Your task to perform on an android device: find which apps use the phone's location Image 0: 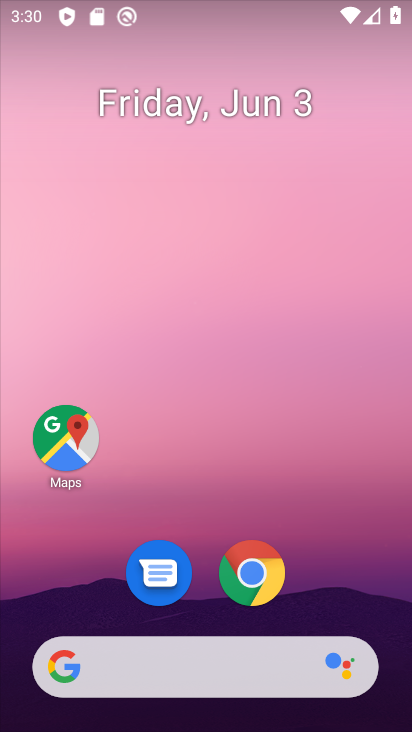
Step 0: drag from (399, 711) to (383, 138)
Your task to perform on an android device: find which apps use the phone's location Image 1: 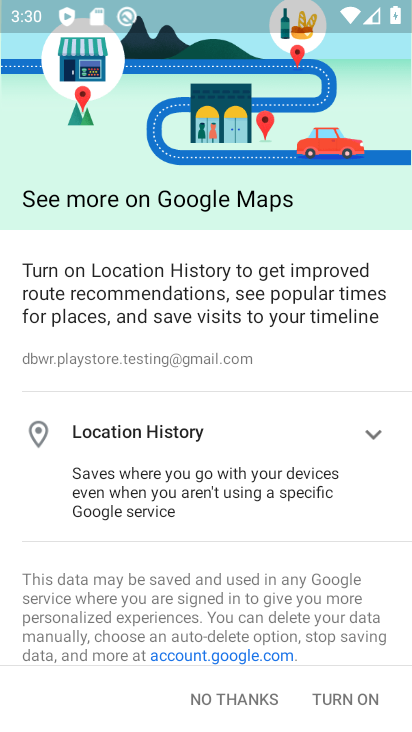
Step 1: click (341, 702)
Your task to perform on an android device: find which apps use the phone's location Image 2: 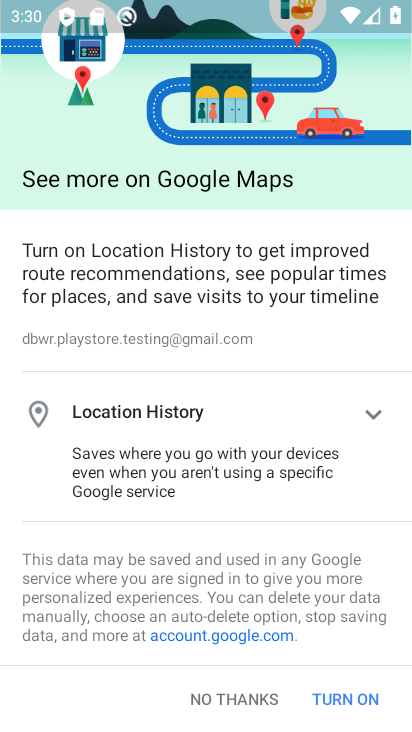
Step 2: press home button
Your task to perform on an android device: find which apps use the phone's location Image 3: 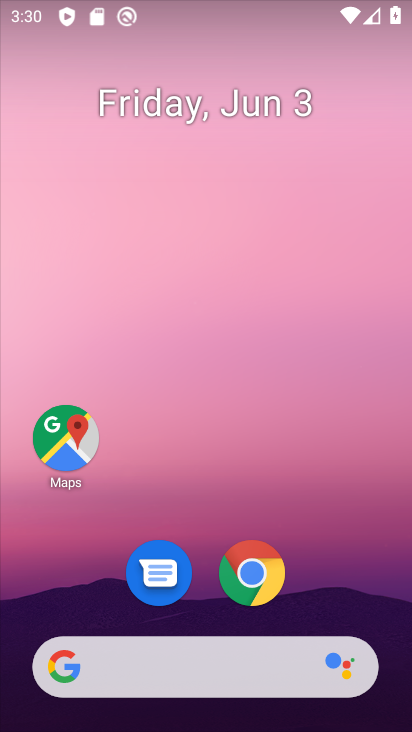
Step 3: drag from (408, 705) to (394, 524)
Your task to perform on an android device: find which apps use the phone's location Image 4: 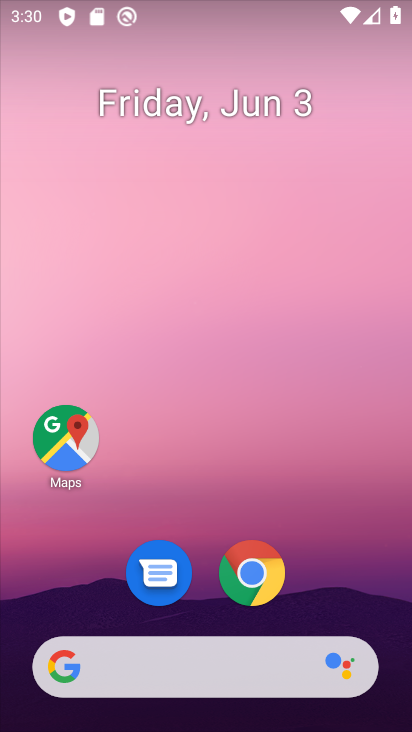
Step 4: drag from (394, 707) to (384, 278)
Your task to perform on an android device: find which apps use the phone's location Image 5: 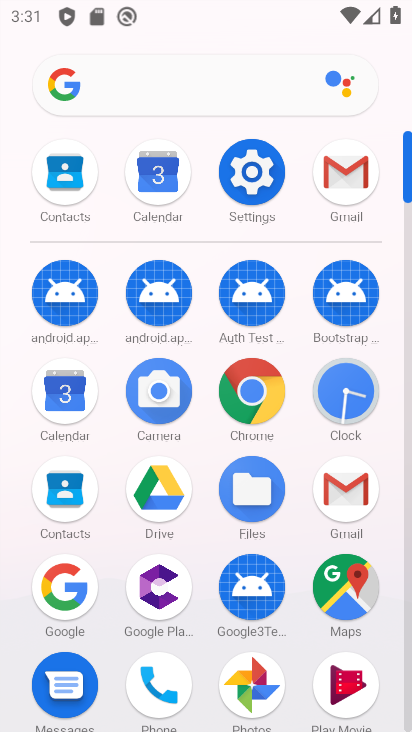
Step 5: click (247, 177)
Your task to perform on an android device: find which apps use the phone's location Image 6: 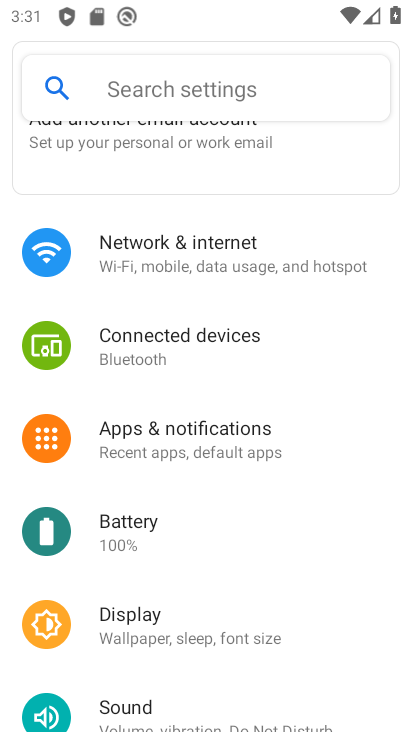
Step 6: drag from (279, 643) to (293, 349)
Your task to perform on an android device: find which apps use the phone's location Image 7: 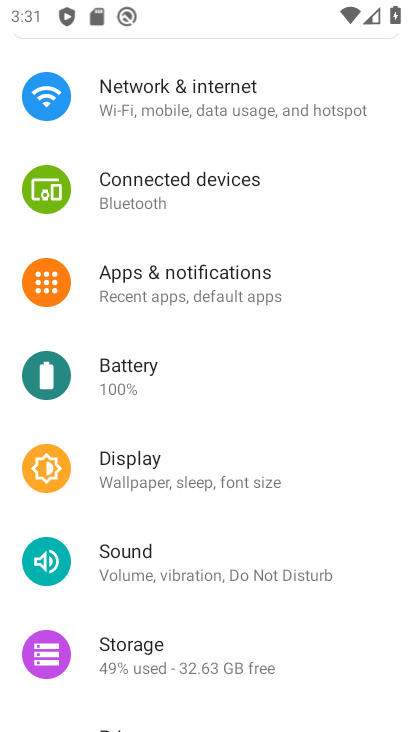
Step 7: drag from (313, 583) to (312, 250)
Your task to perform on an android device: find which apps use the phone's location Image 8: 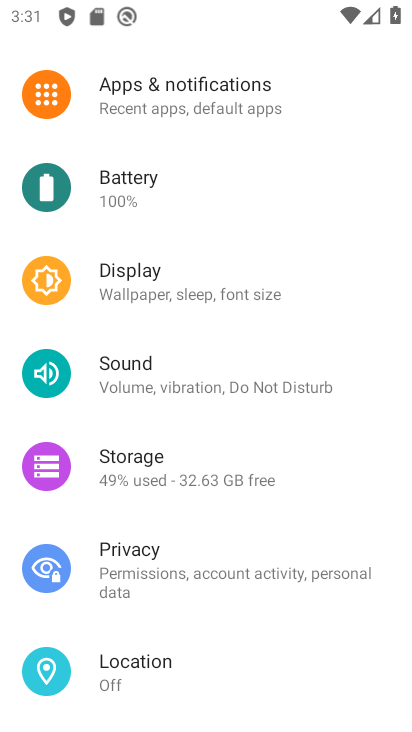
Step 8: click (135, 663)
Your task to perform on an android device: find which apps use the phone's location Image 9: 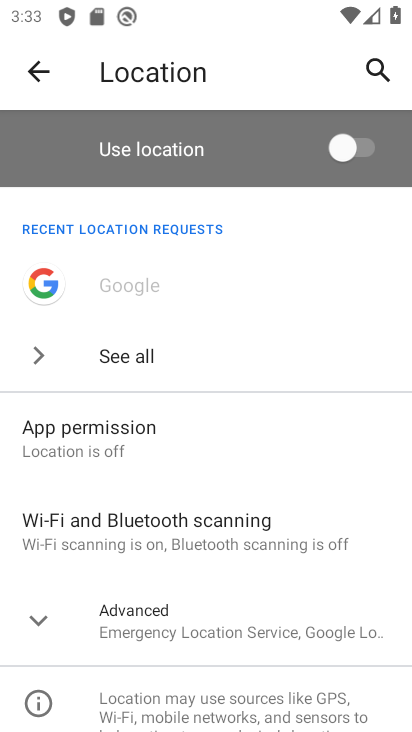
Step 9: click (105, 409)
Your task to perform on an android device: find which apps use the phone's location Image 10: 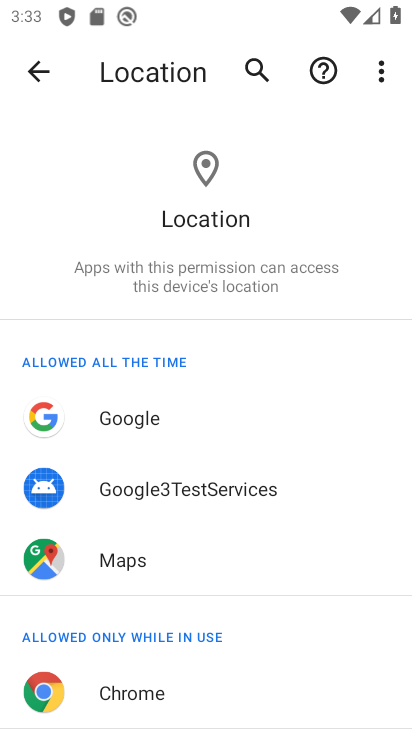
Step 10: task complete